Your task to perform on an android device: Go to ESPN.com Image 0: 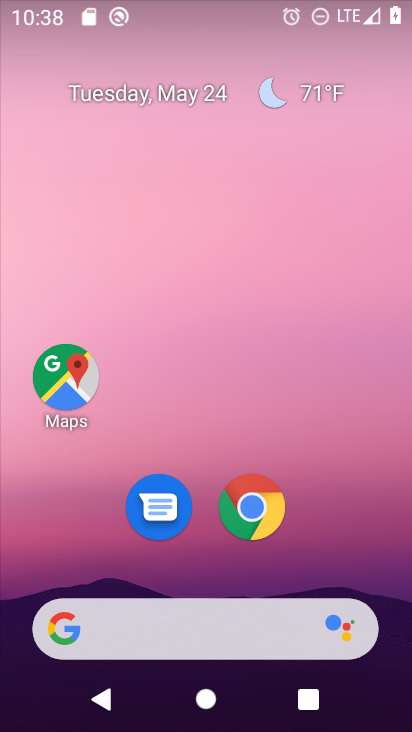
Step 0: click (251, 517)
Your task to perform on an android device: Go to ESPN.com Image 1: 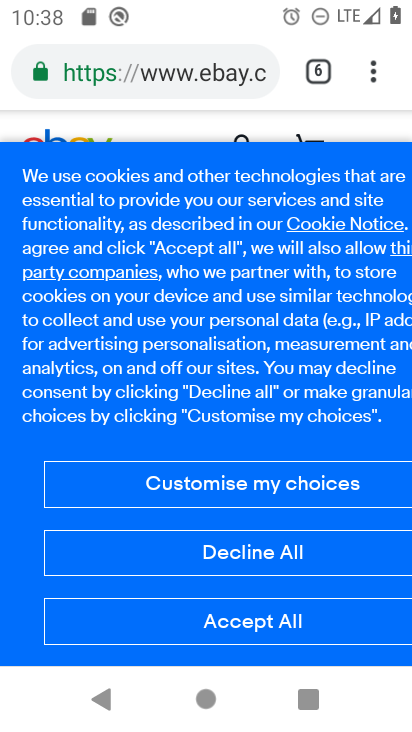
Step 1: click (373, 80)
Your task to perform on an android device: Go to ESPN.com Image 2: 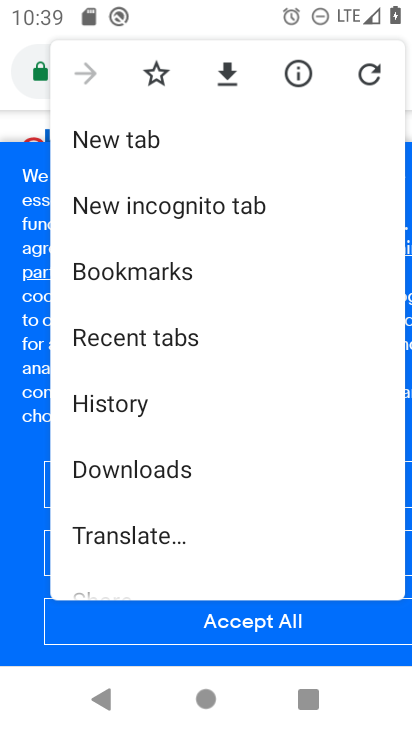
Step 2: click (136, 135)
Your task to perform on an android device: Go to ESPN.com Image 3: 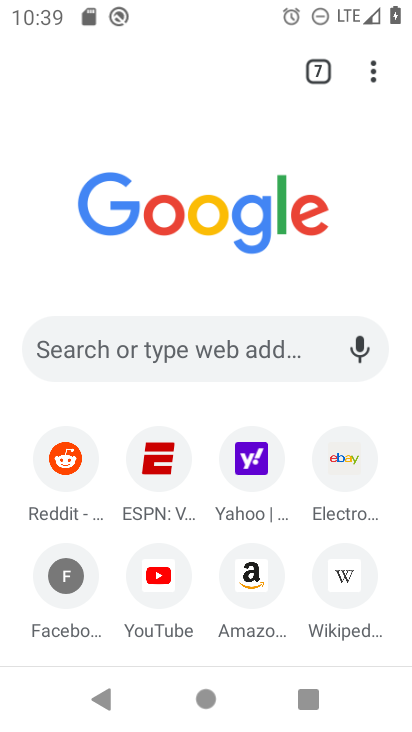
Step 3: click (154, 471)
Your task to perform on an android device: Go to ESPN.com Image 4: 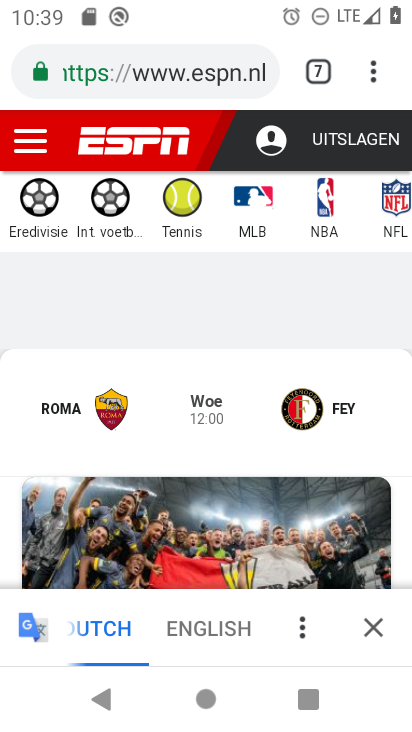
Step 4: task complete